Your task to perform on an android device: toggle notifications settings in the gmail app Image 0: 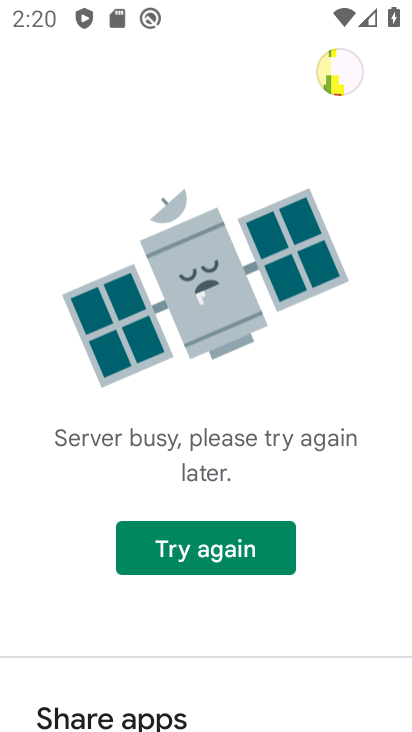
Step 0: press home button
Your task to perform on an android device: toggle notifications settings in the gmail app Image 1: 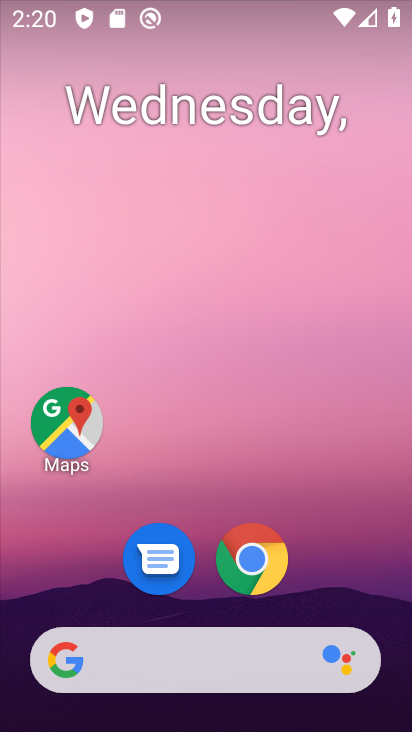
Step 1: drag from (347, 539) to (319, 349)
Your task to perform on an android device: toggle notifications settings in the gmail app Image 2: 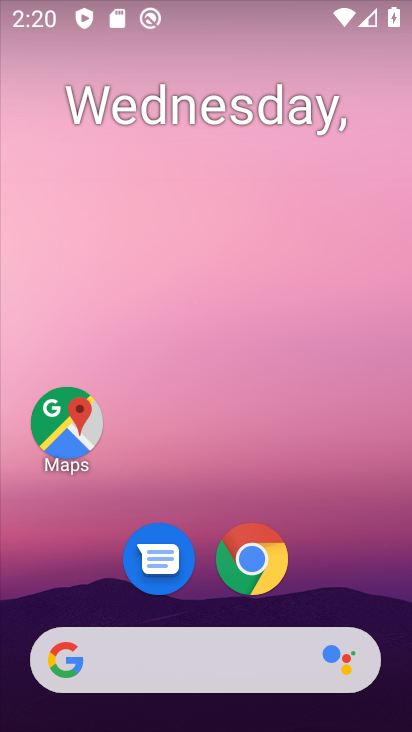
Step 2: drag from (330, 551) to (310, 171)
Your task to perform on an android device: toggle notifications settings in the gmail app Image 3: 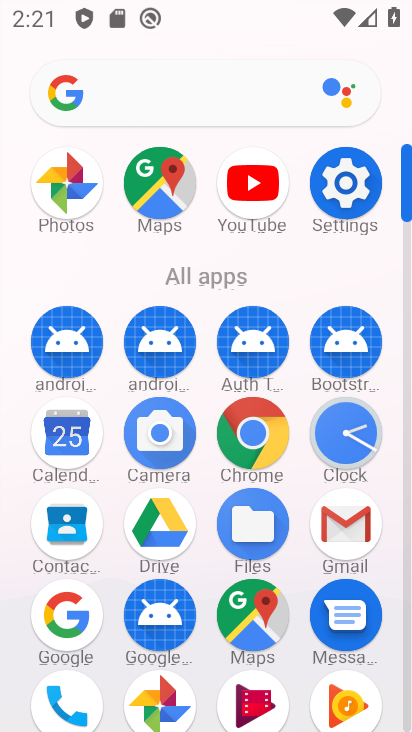
Step 3: click (342, 528)
Your task to perform on an android device: toggle notifications settings in the gmail app Image 4: 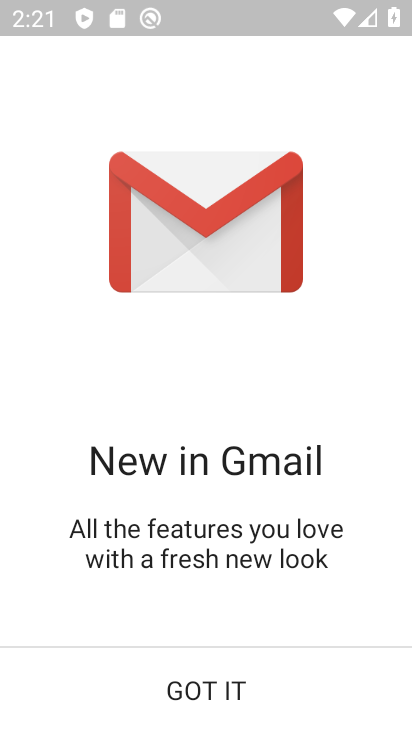
Step 4: click (188, 681)
Your task to perform on an android device: toggle notifications settings in the gmail app Image 5: 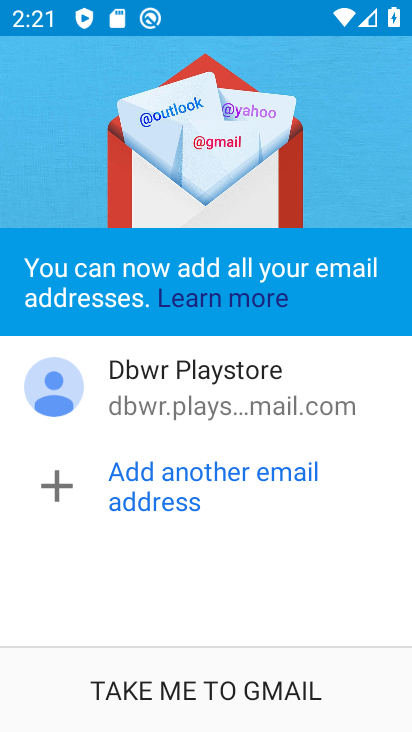
Step 5: click (200, 667)
Your task to perform on an android device: toggle notifications settings in the gmail app Image 6: 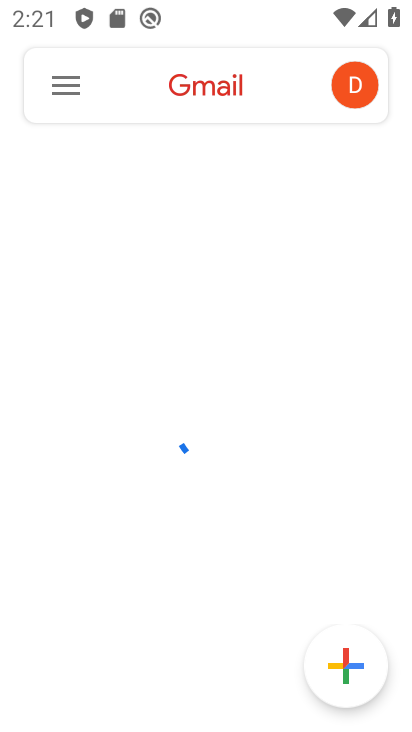
Step 6: click (78, 101)
Your task to perform on an android device: toggle notifications settings in the gmail app Image 7: 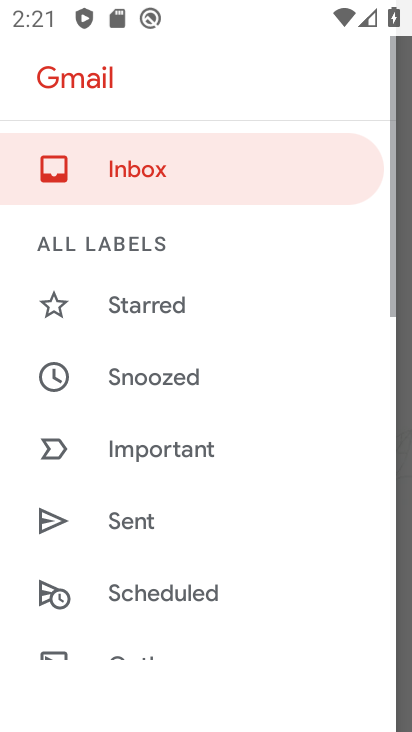
Step 7: drag from (169, 573) to (177, 225)
Your task to perform on an android device: toggle notifications settings in the gmail app Image 8: 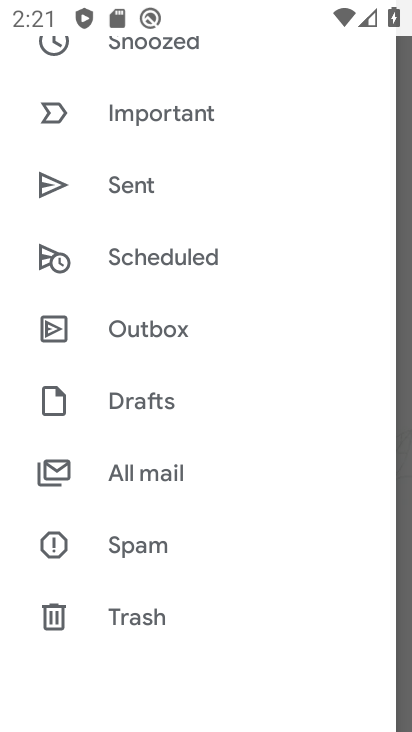
Step 8: drag from (226, 514) to (227, 192)
Your task to perform on an android device: toggle notifications settings in the gmail app Image 9: 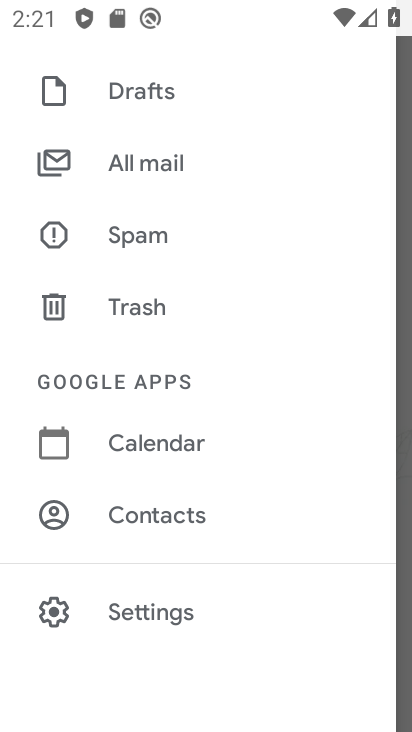
Step 9: click (181, 590)
Your task to perform on an android device: toggle notifications settings in the gmail app Image 10: 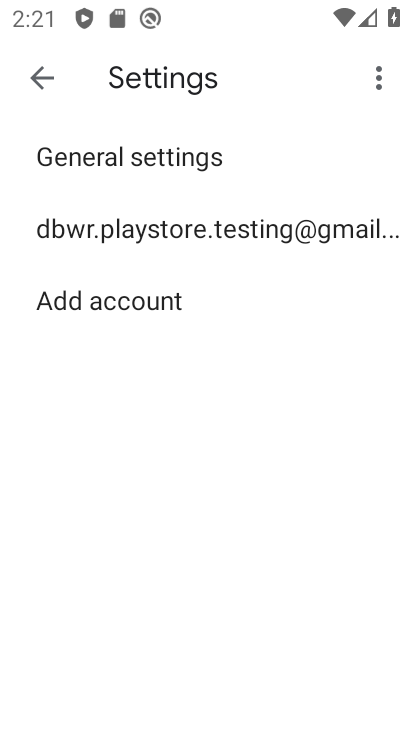
Step 10: click (191, 216)
Your task to perform on an android device: toggle notifications settings in the gmail app Image 11: 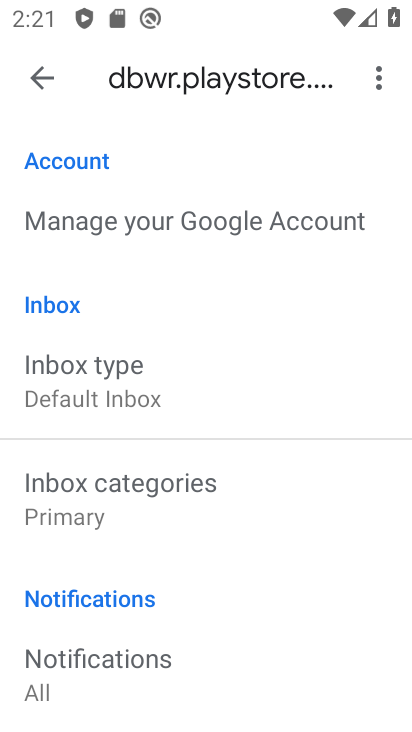
Step 11: click (135, 656)
Your task to perform on an android device: toggle notifications settings in the gmail app Image 12: 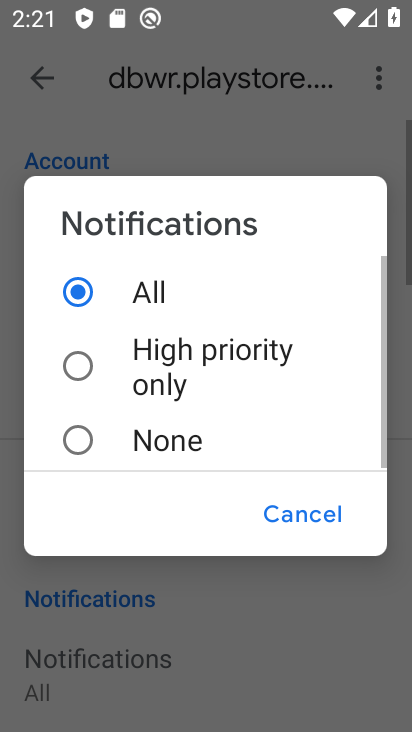
Step 12: click (143, 344)
Your task to perform on an android device: toggle notifications settings in the gmail app Image 13: 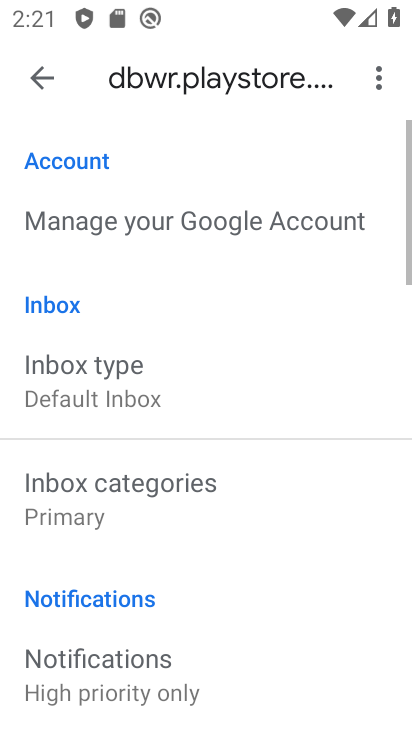
Step 13: task complete